Your task to perform on an android device: turn off location history Image 0: 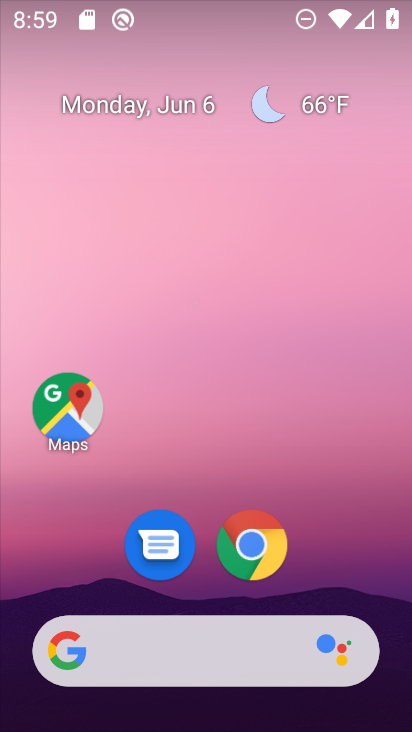
Step 0: drag from (220, 524) to (247, 149)
Your task to perform on an android device: turn off location history Image 1: 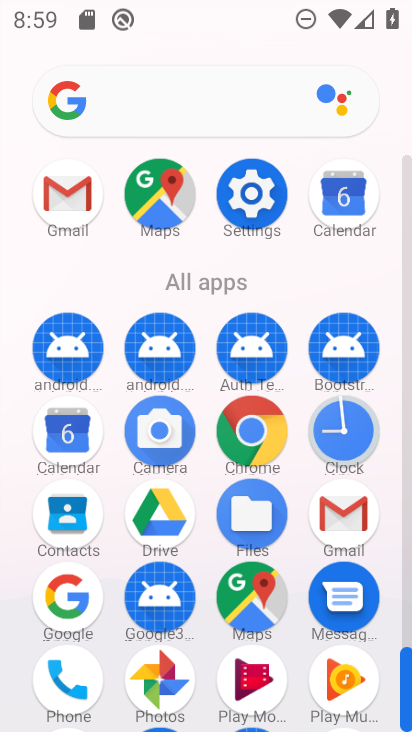
Step 1: click (255, 197)
Your task to perform on an android device: turn off location history Image 2: 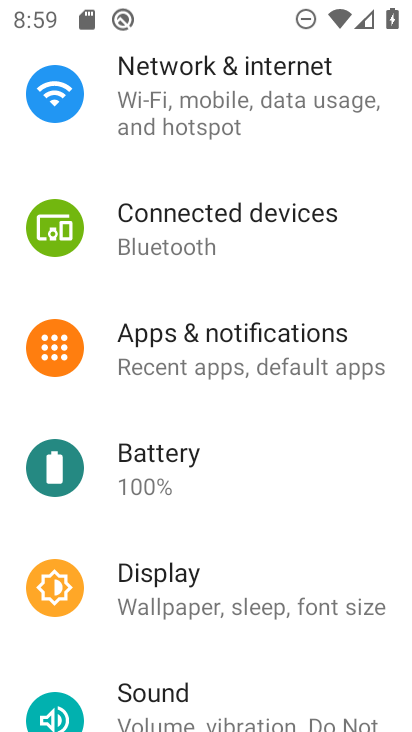
Step 2: drag from (188, 576) to (253, 199)
Your task to perform on an android device: turn off location history Image 3: 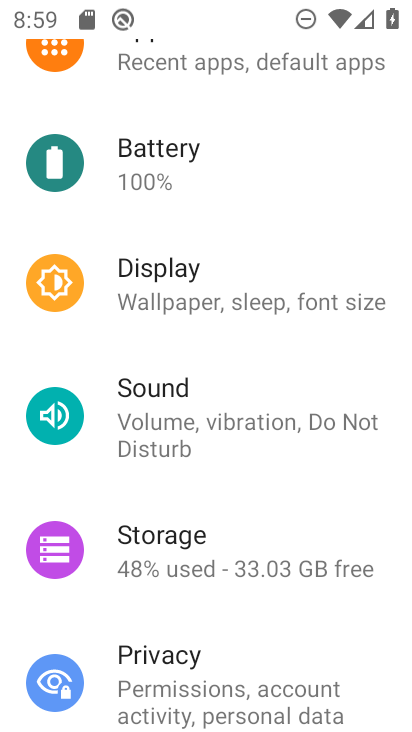
Step 3: drag from (240, 554) to (286, 177)
Your task to perform on an android device: turn off location history Image 4: 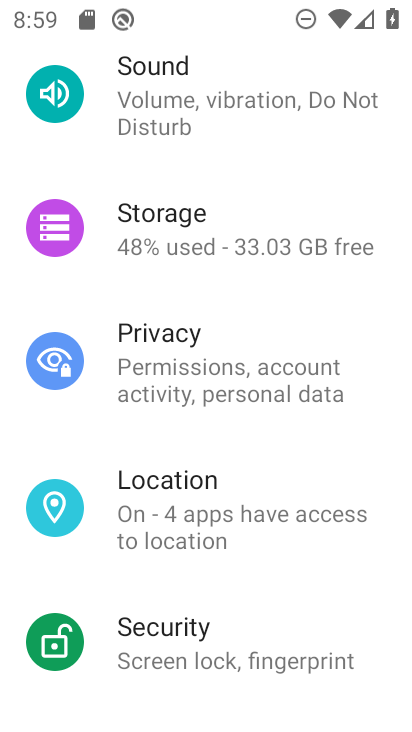
Step 4: click (190, 514)
Your task to perform on an android device: turn off location history Image 5: 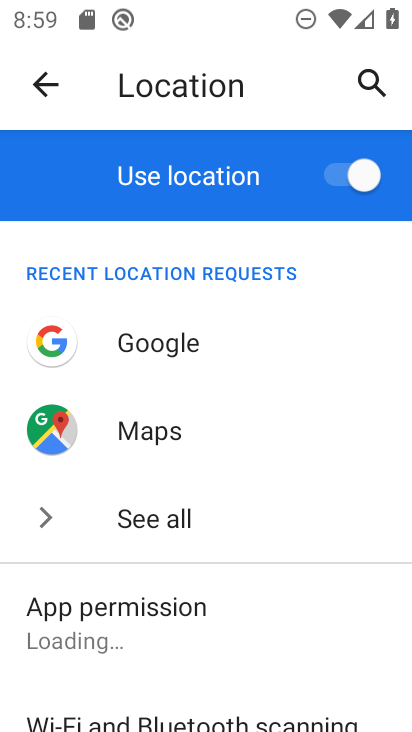
Step 5: drag from (198, 597) to (213, 358)
Your task to perform on an android device: turn off location history Image 6: 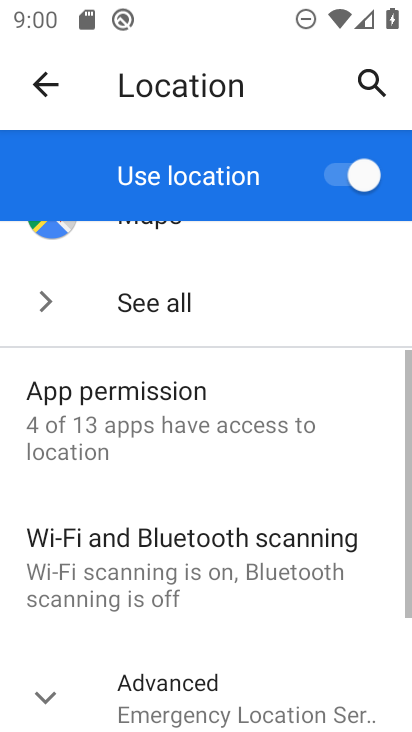
Step 6: drag from (197, 579) to (223, 426)
Your task to perform on an android device: turn off location history Image 7: 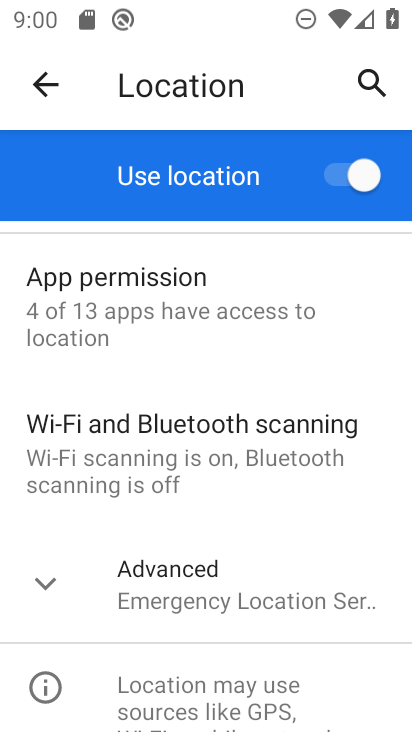
Step 7: click (137, 581)
Your task to perform on an android device: turn off location history Image 8: 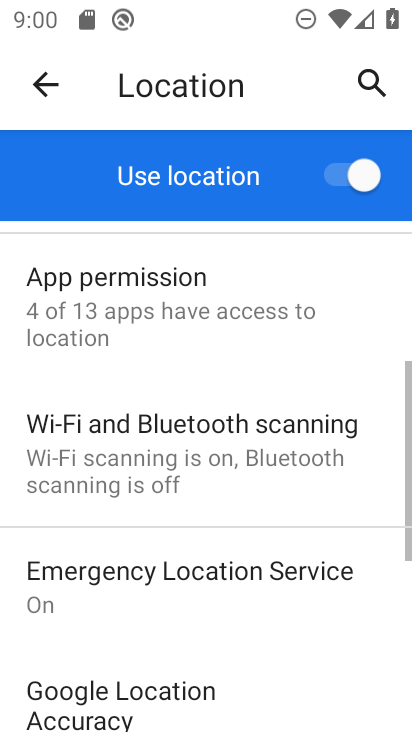
Step 8: drag from (190, 670) to (222, 411)
Your task to perform on an android device: turn off location history Image 9: 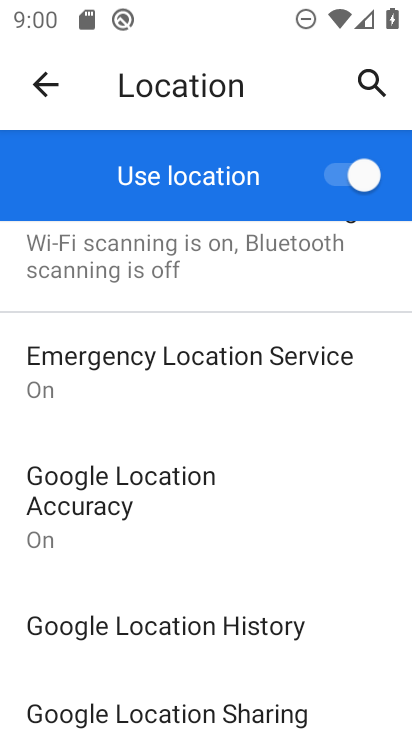
Step 9: click (168, 628)
Your task to perform on an android device: turn off location history Image 10: 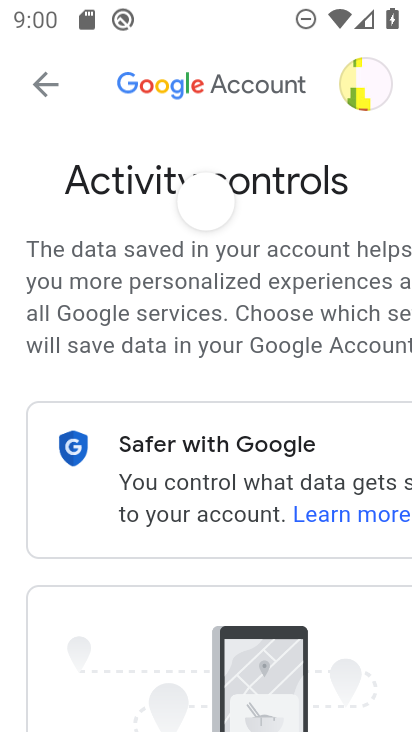
Step 10: task complete